Your task to perform on an android device: Add "alienware aurora" to the cart on costco.com, then select checkout. Image 0: 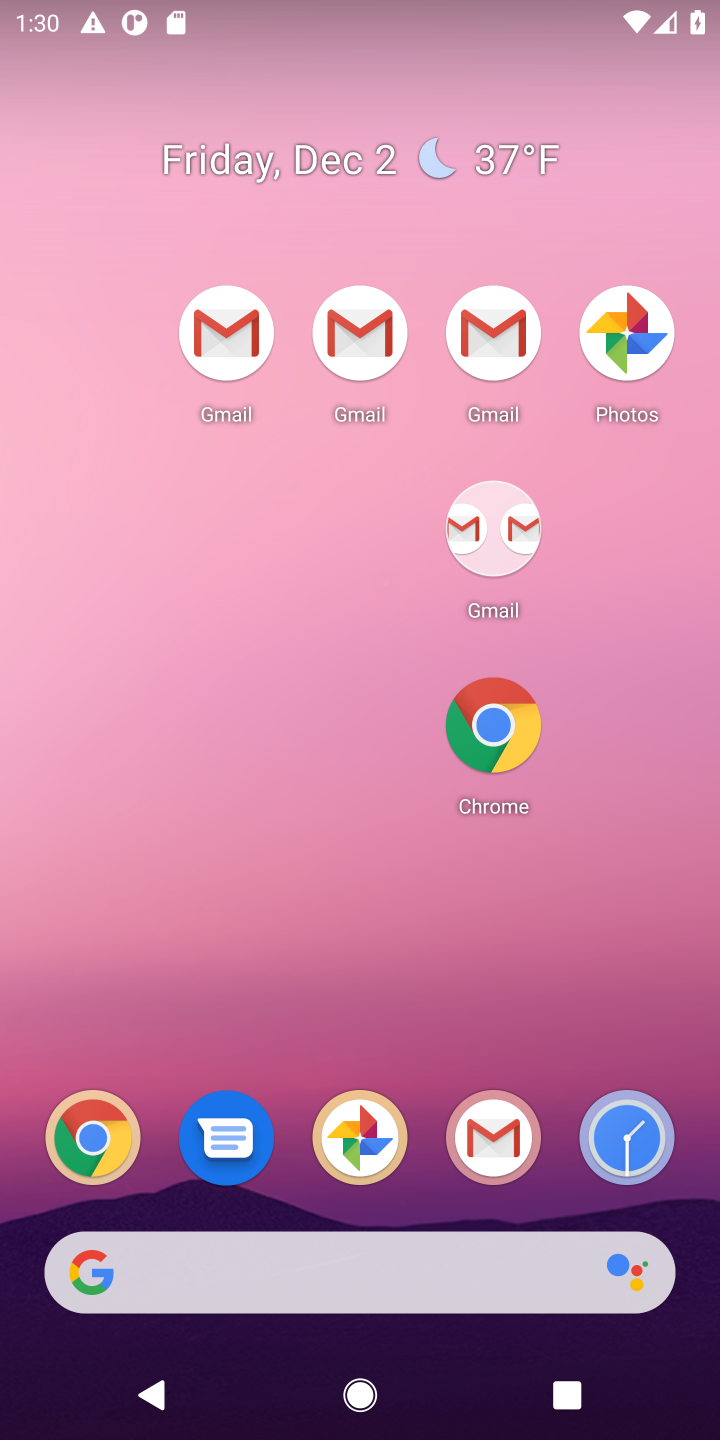
Step 0: drag from (433, 586) to (417, 281)
Your task to perform on an android device: Add "alienware aurora" to the cart on costco.com, then select checkout. Image 1: 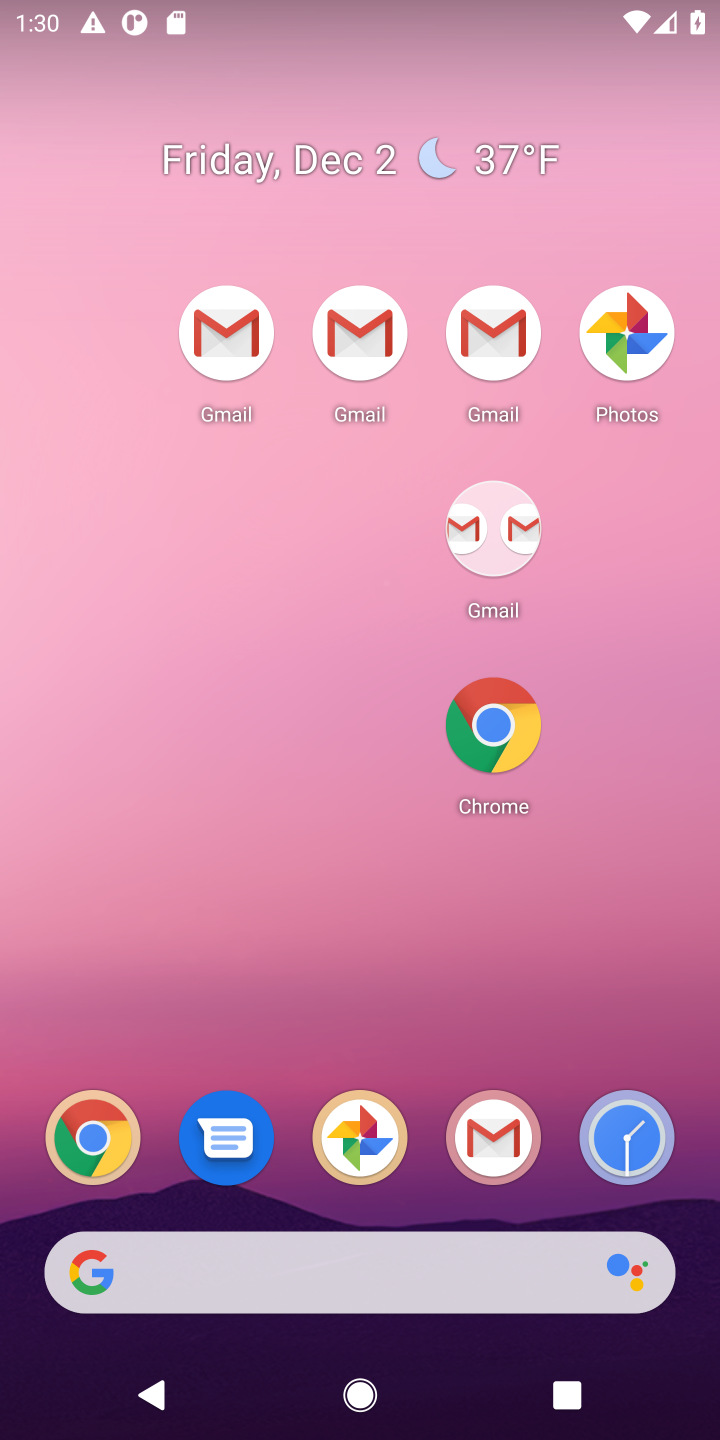
Step 1: drag from (272, 1068) to (272, 80)
Your task to perform on an android device: Add "alienware aurora" to the cart on costco.com, then select checkout. Image 2: 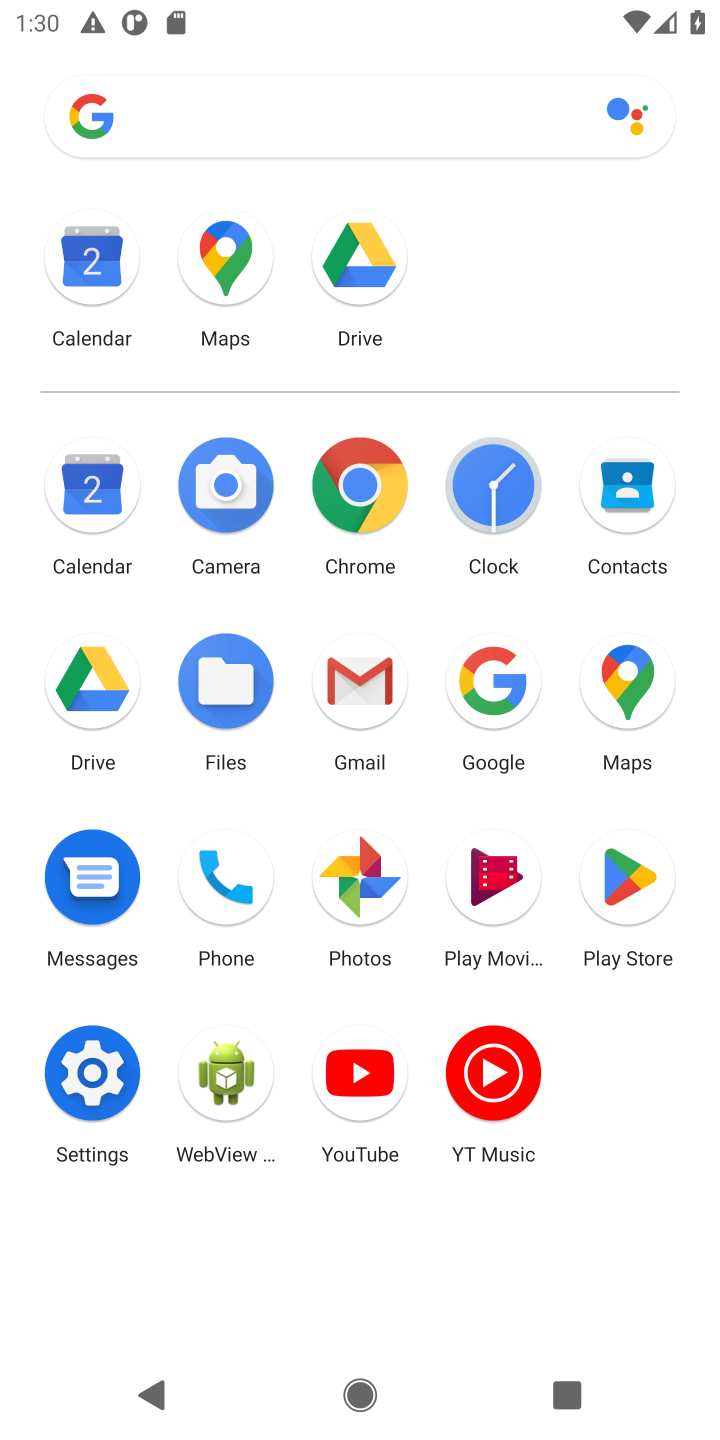
Step 2: click (494, 684)
Your task to perform on an android device: Add "alienware aurora" to the cart on costco.com, then select checkout. Image 3: 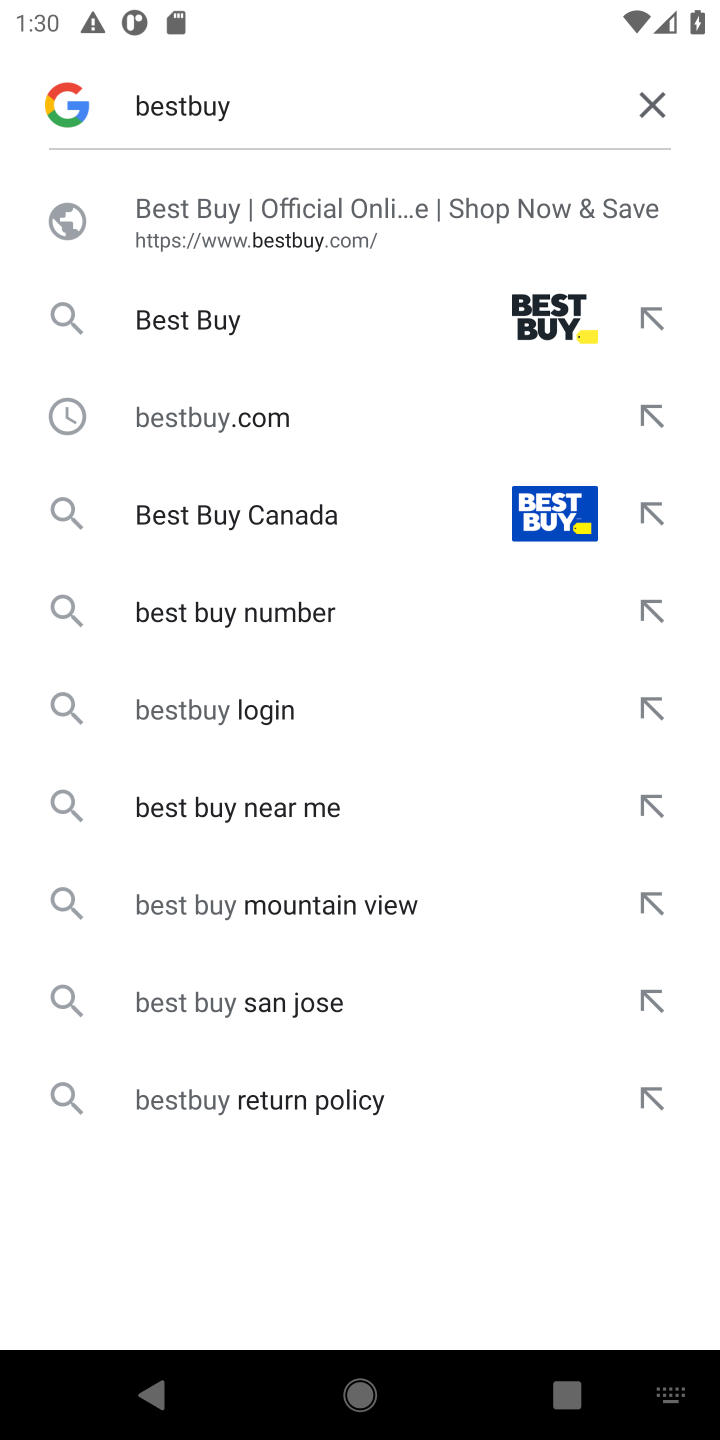
Step 3: click (656, 109)
Your task to perform on an android device: Add "alienware aurora" to the cart on costco.com, then select checkout. Image 4: 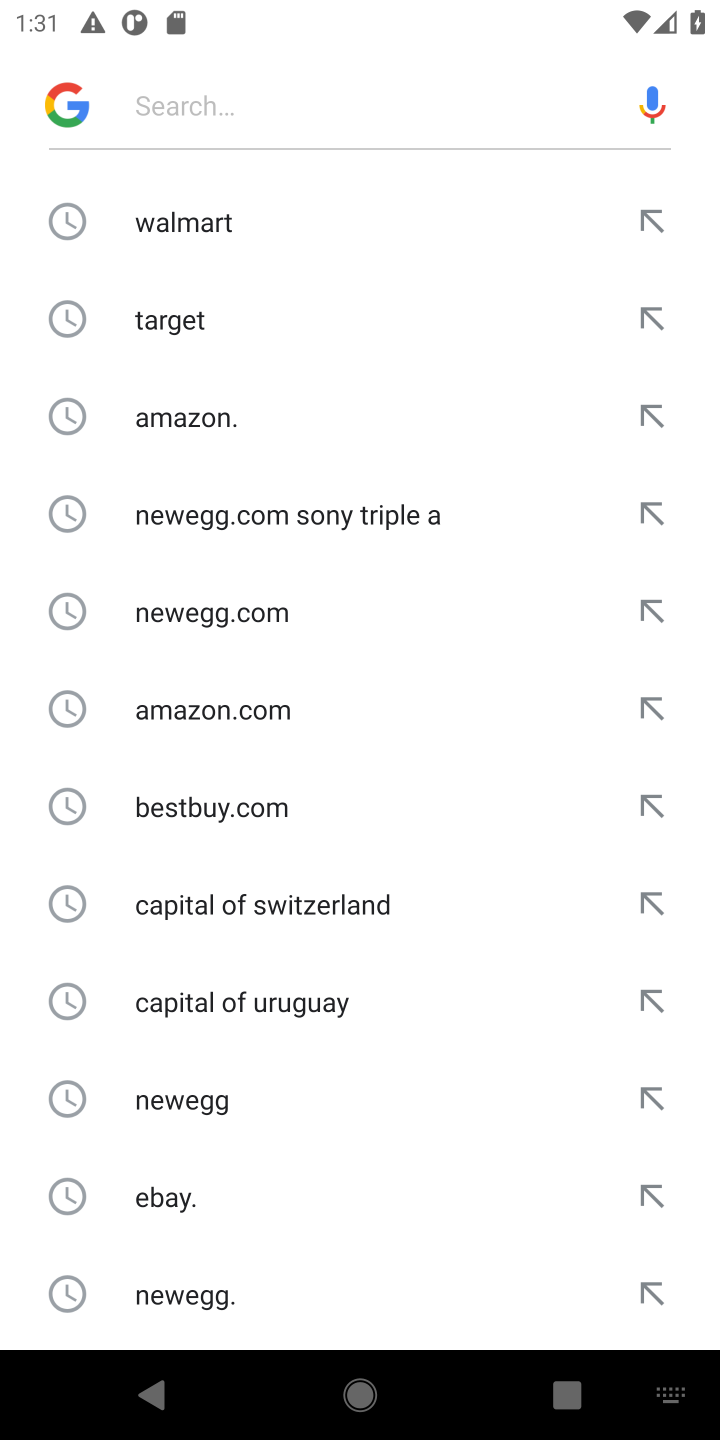
Step 4: type "costco.com"
Your task to perform on an android device: Add "alienware aurora" to the cart on costco.com, then select checkout. Image 5: 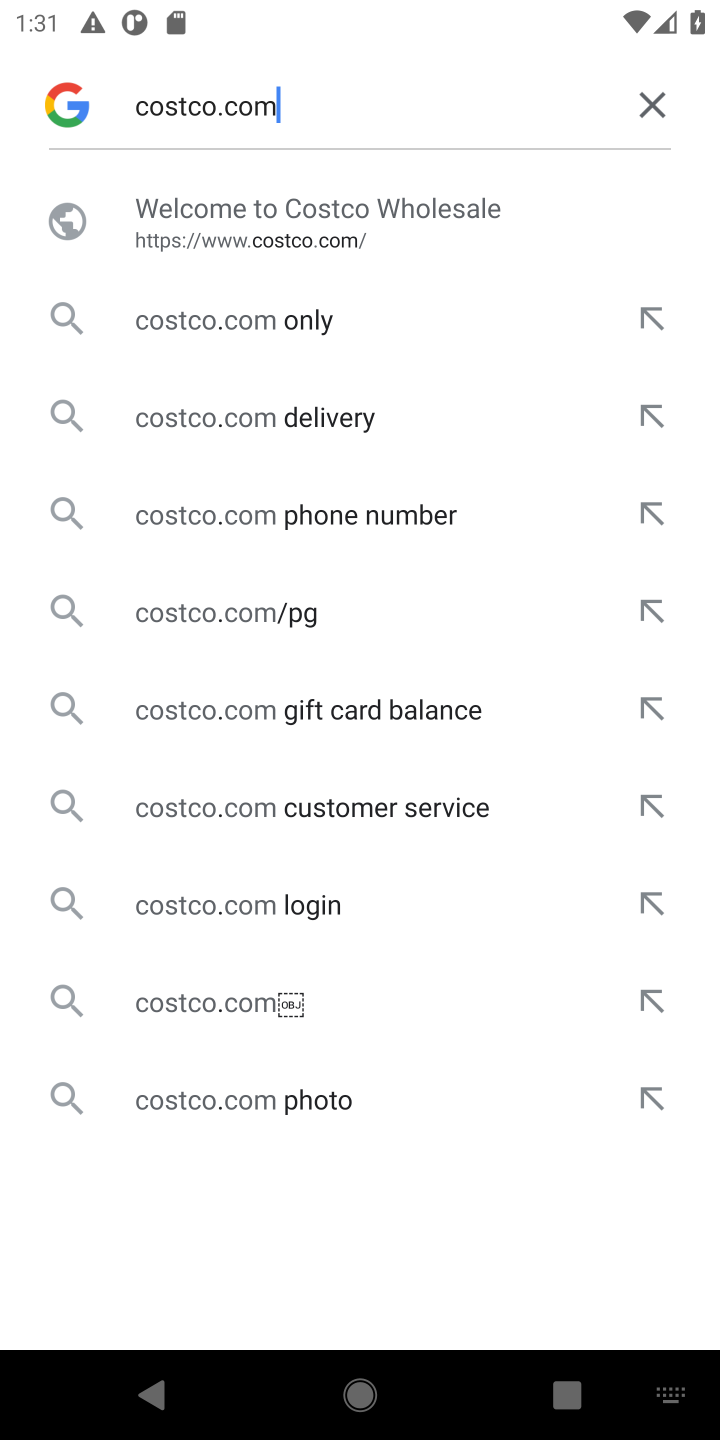
Step 5: click (457, 235)
Your task to perform on an android device: Add "alienware aurora" to the cart on costco.com, then select checkout. Image 6: 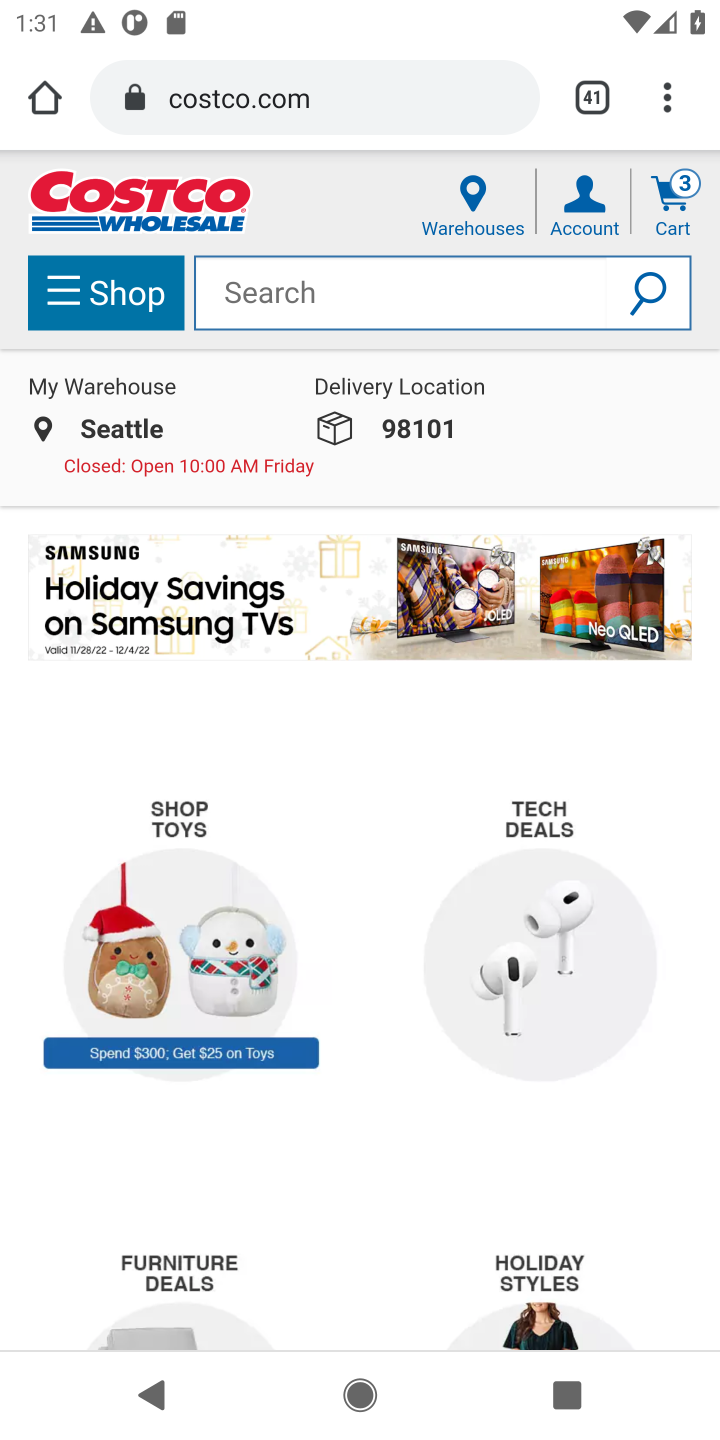
Step 6: click (394, 301)
Your task to perform on an android device: Add "alienware aurora" to the cart on costco.com, then select checkout. Image 7: 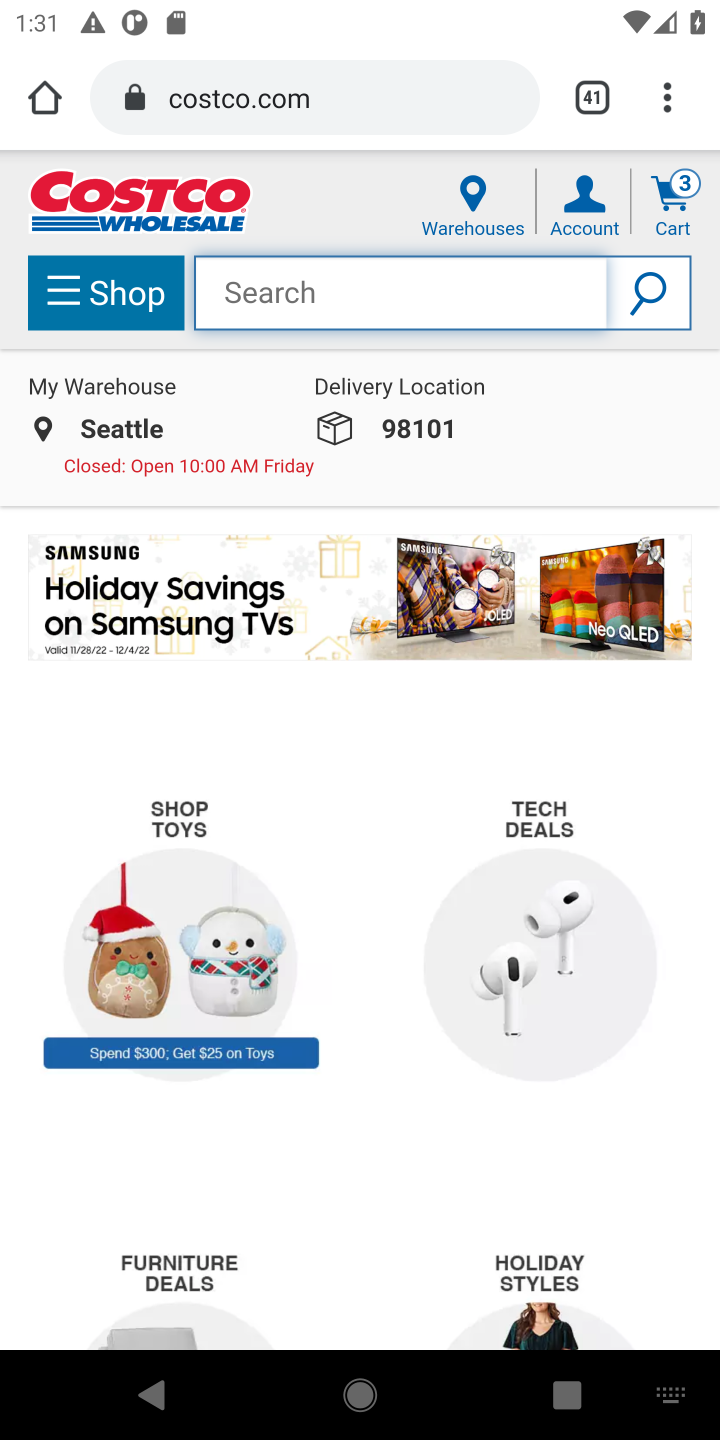
Step 7: type "alienware aurora"
Your task to perform on an android device: Add "alienware aurora" to the cart on costco.com, then select checkout. Image 8: 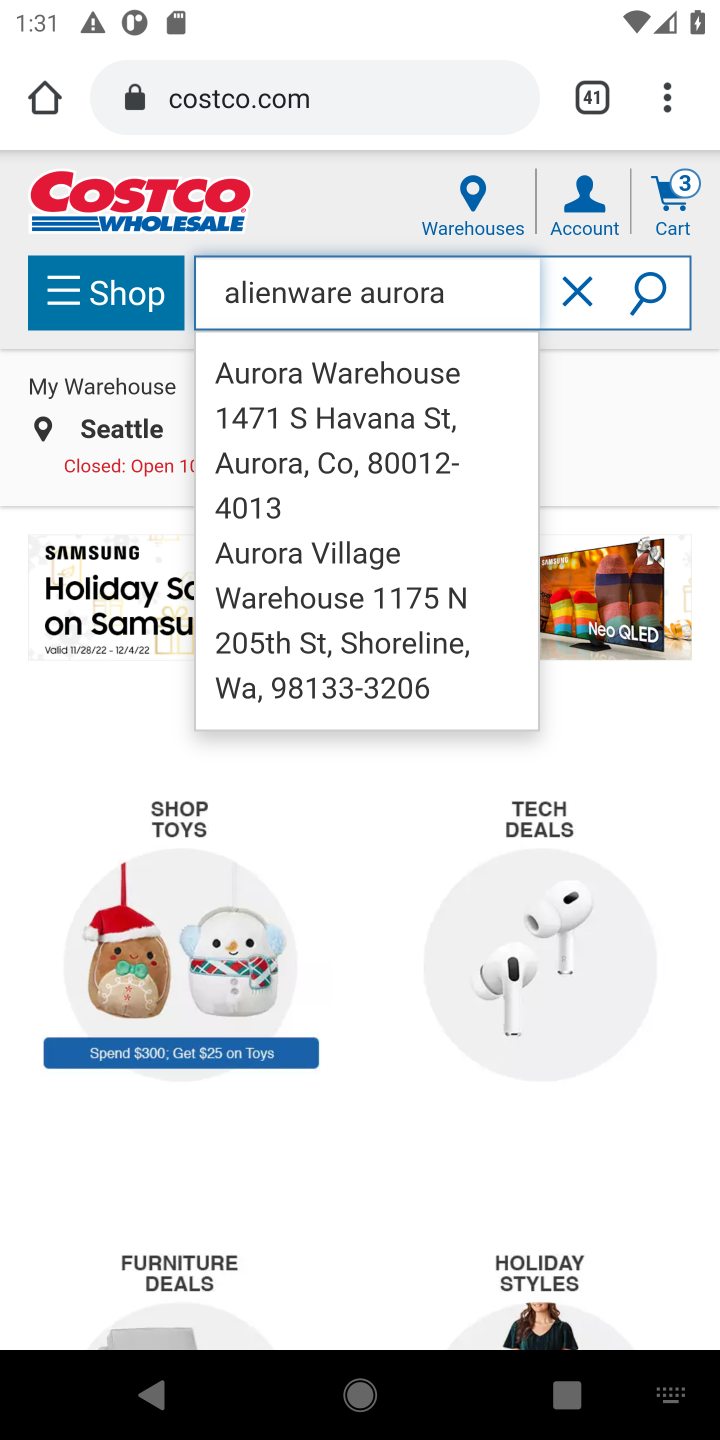
Step 8: click (656, 301)
Your task to perform on an android device: Add "alienware aurora" to the cart on costco.com, then select checkout. Image 9: 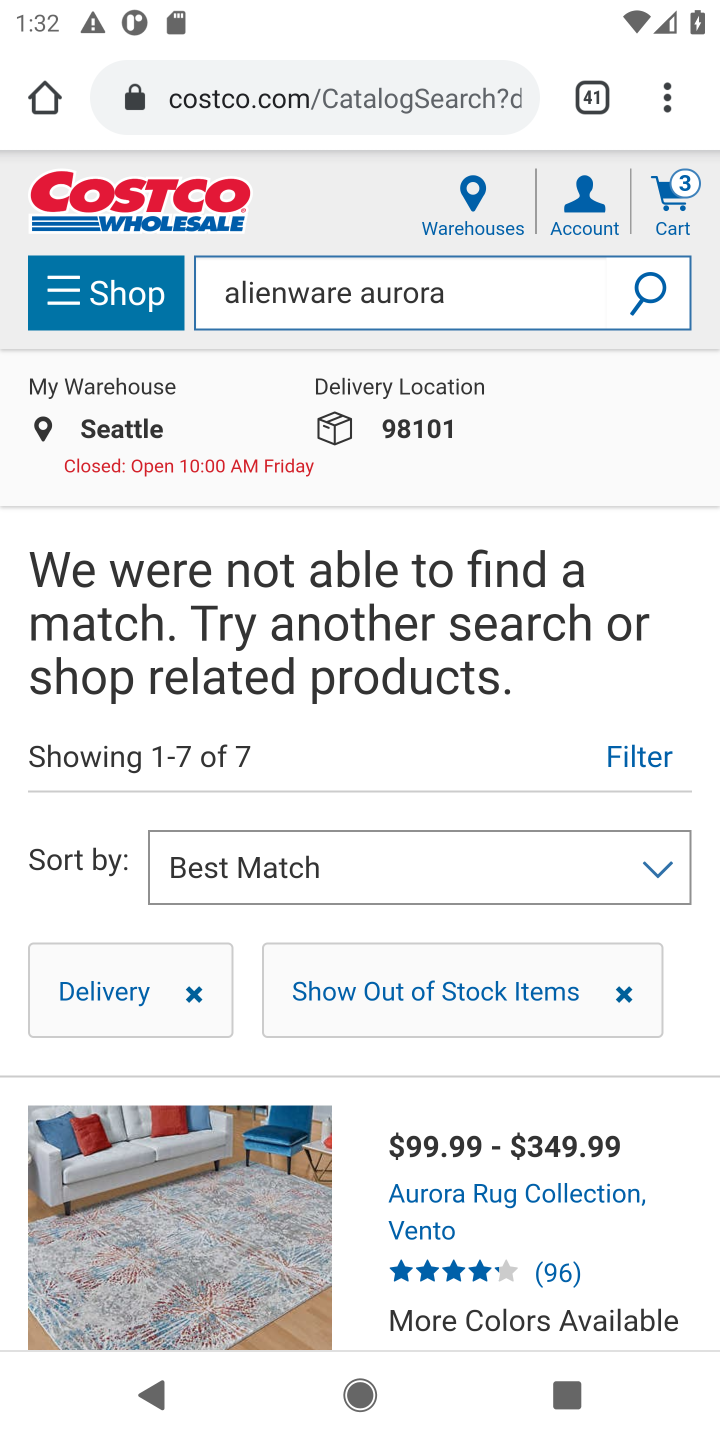
Step 9: task complete